Your task to perform on an android device: set an alarm Image 0: 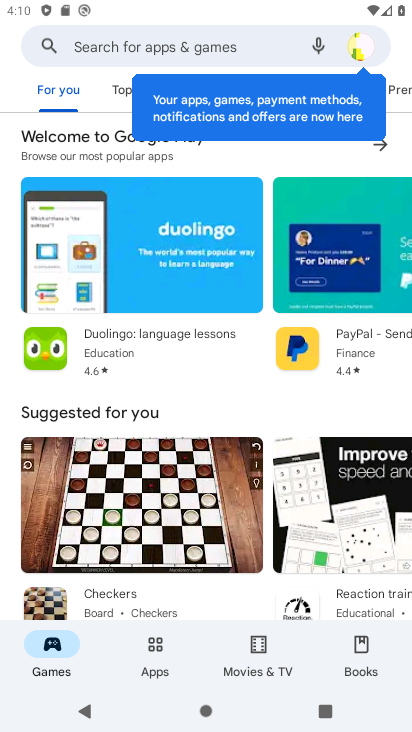
Step 0: press home button
Your task to perform on an android device: set an alarm Image 1: 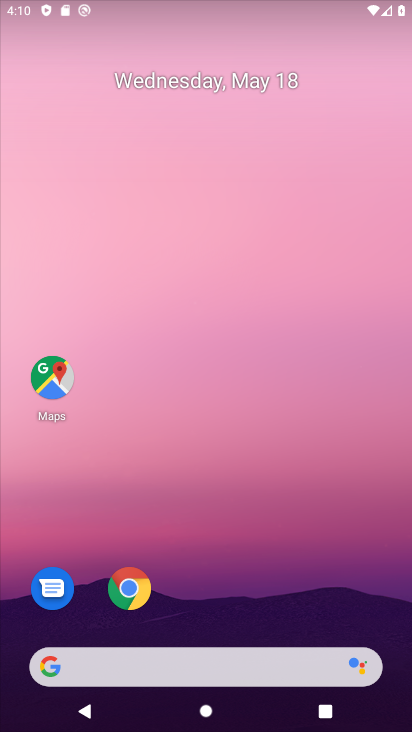
Step 1: drag from (301, 567) to (247, 153)
Your task to perform on an android device: set an alarm Image 2: 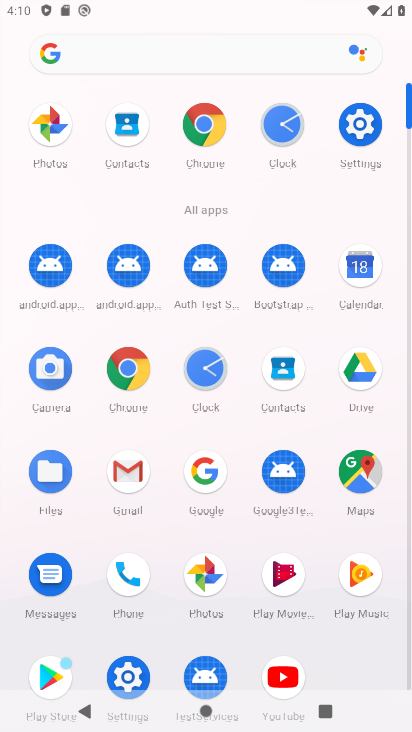
Step 2: click (206, 365)
Your task to perform on an android device: set an alarm Image 3: 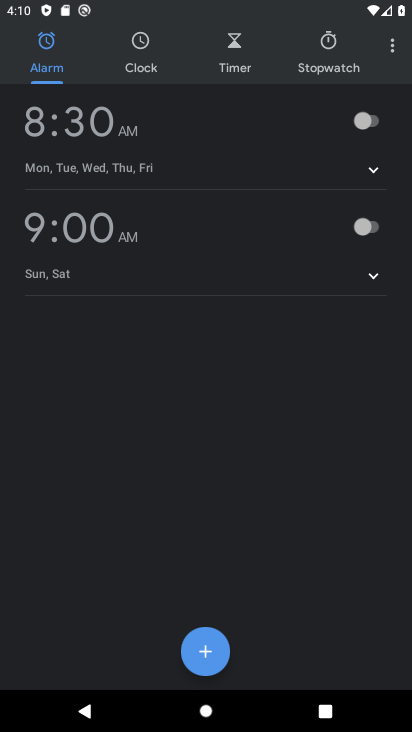
Step 3: click (214, 648)
Your task to perform on an android device: set an alarm Image 4: 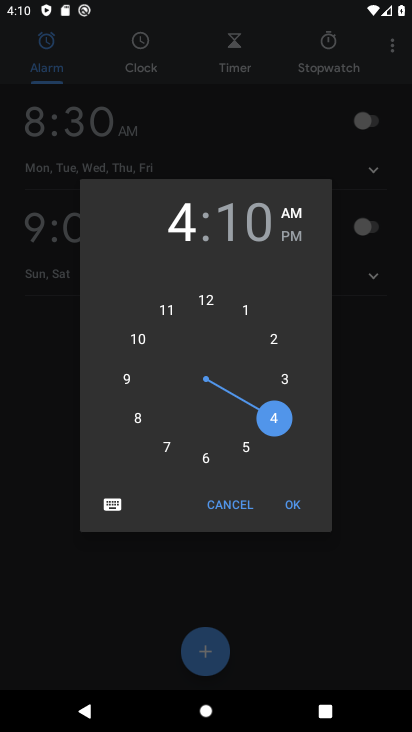
Step 4: click (294, 495)
Your task to perform on an android device: set an alarm Image 5: 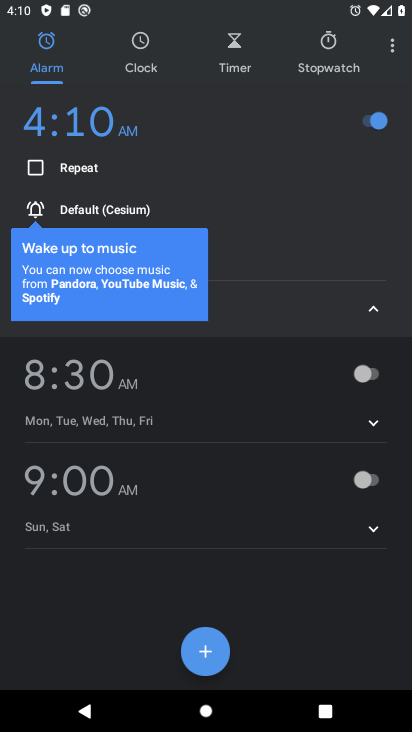
Step 5: task complete